Your task to perform on an android device: Look up the best rated pressure washer on Home Depot. Image 0: 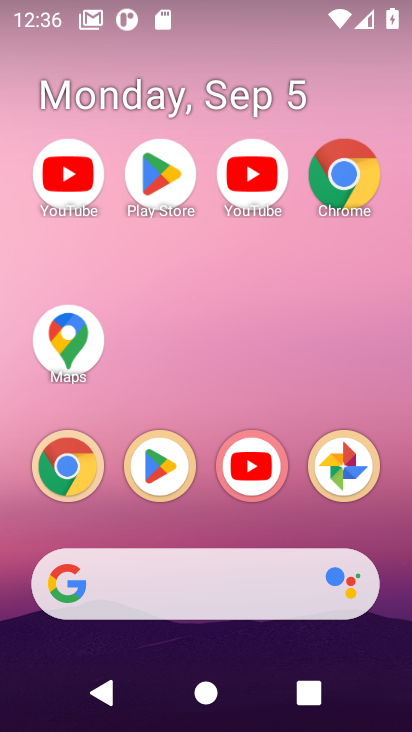
Step 0: click (344, 173)
Your task to perform on an android device: Look up the best rated pressure washer on Home Depot. Image 1: 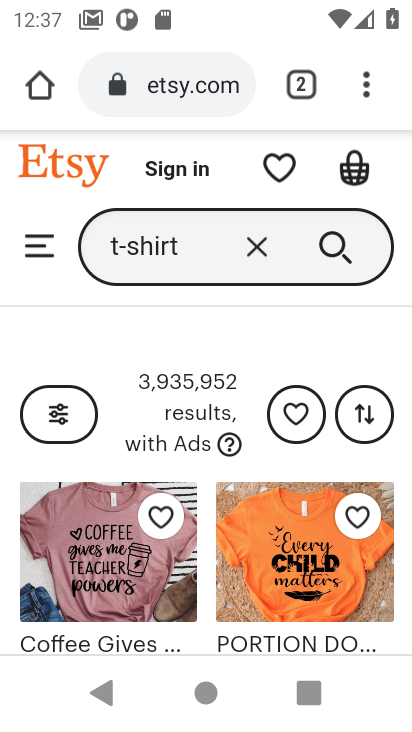
Step 1: click (175, 81)
Your task to perform on an android device: Look up the best rated pressure washer on Home Depot. Image 2: 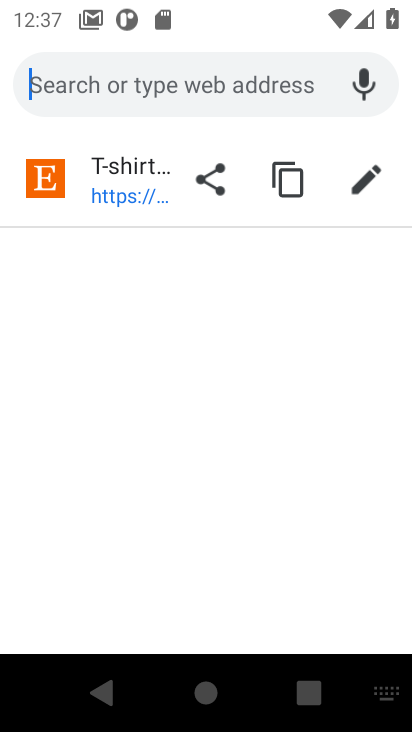
Step 2: type "Home Depot."
Your task to perform on an android device: Look up the best rated pressure washer on Home Depot. Image 3: 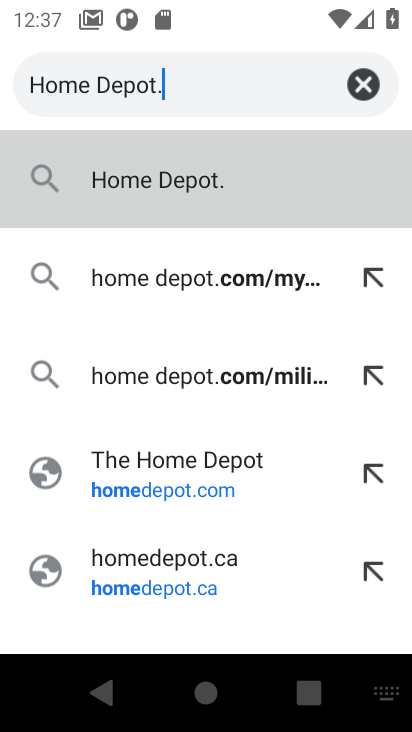
Step 3: click (188, 180)
Your task to perform on an android device: Look up the best rated pressure washer on Home Depot. Image 4: 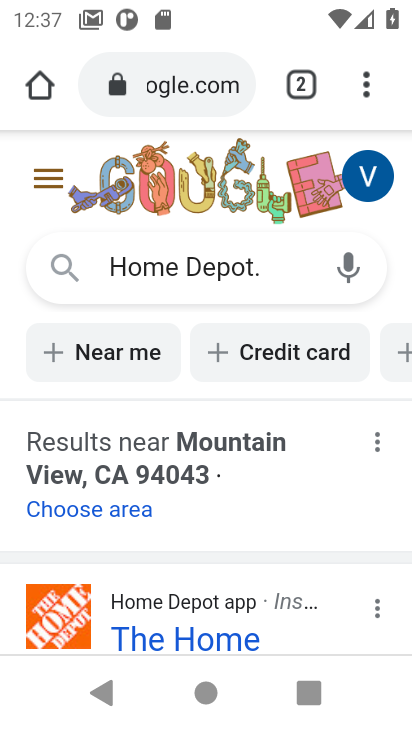
Step 4: click (194, 638)
Your task to perform on an android device: Look up the best rated pressure washer on Home Depot. Image 5: 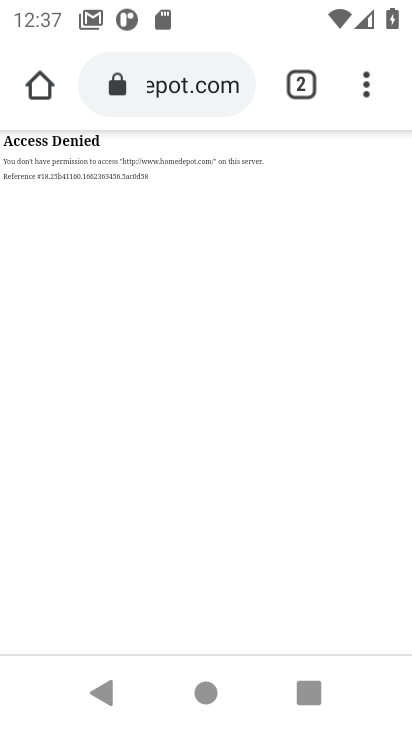
Step 5: task complete